Your task to perform on an android device: Open internet settings Image 0: 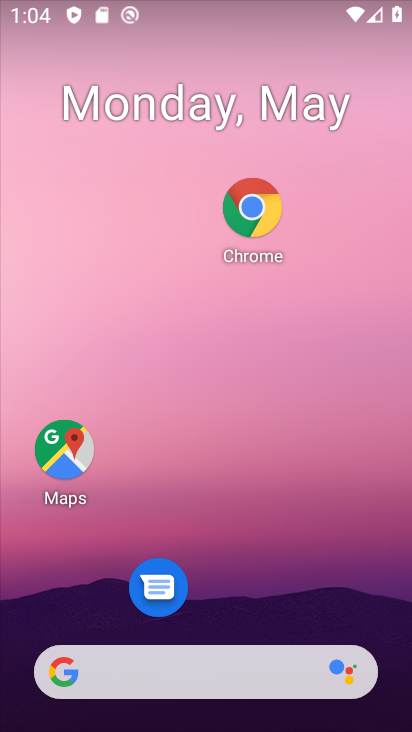
Step 0: drag from (296, 642) to (236, 89)
Your task to perform on an android device: Open internet settings Image 1: 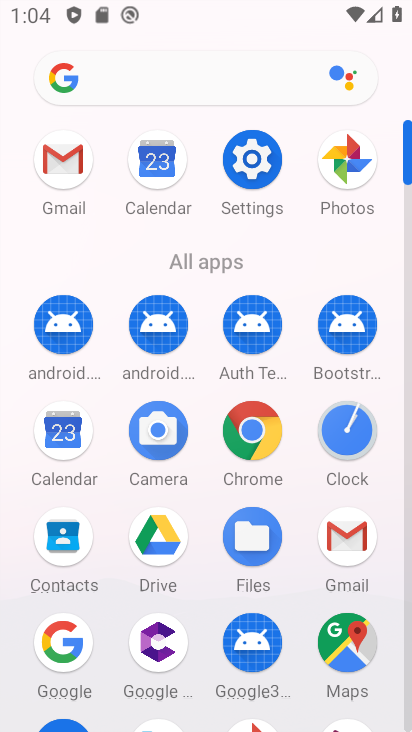
Step 1: click (249, 165)
Your task to perform on an android device: Open internet settings Image 2: 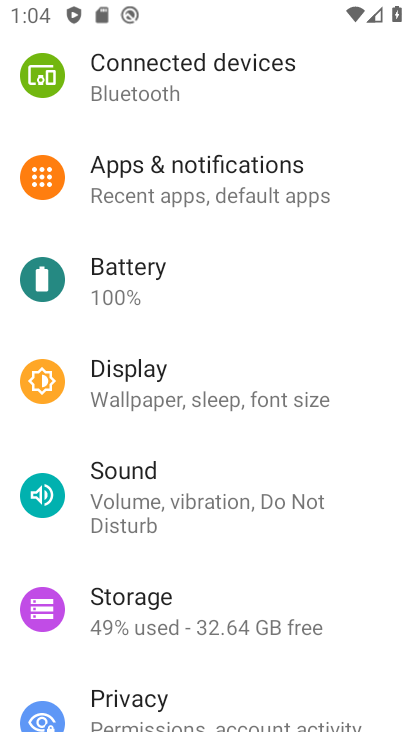
Step 2: drag from (236, 231) to (276, 580)
Your task to perform on an android device: Open internet settings Image 3: 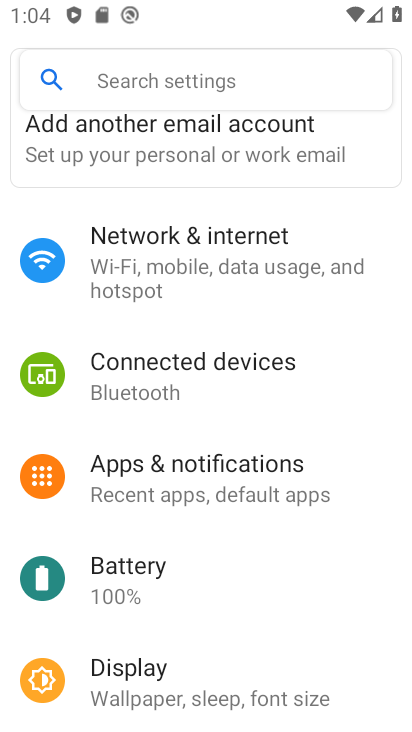
Step 3: click (283, 250)
Your task to perform on an android device: Open internet settings Image 4: 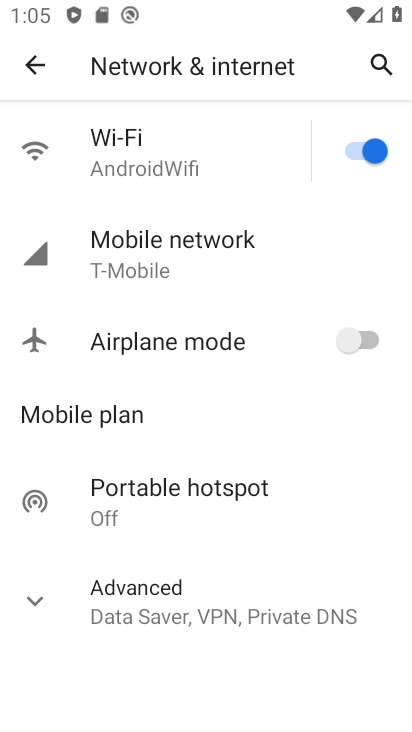
Step 4: task complete